Your task to perform on an android device: Open Yahoo.com Image 0: 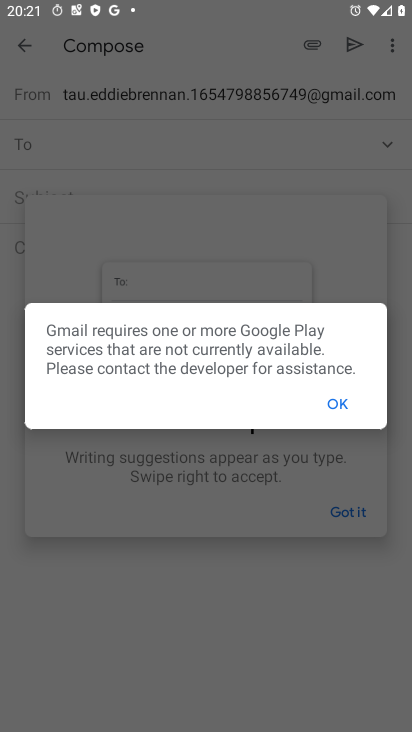
Step 0: press home button
Your task to perform on an android device: Open Yahoo.com Image 1: 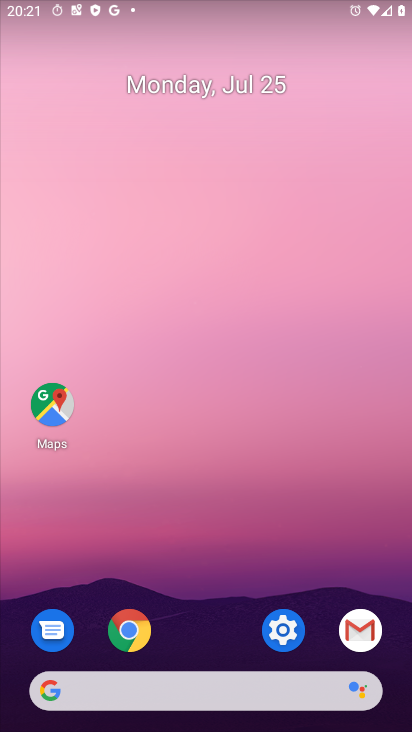
Step 1: click (139, 615)
Your task to perform on an android device: Open Yahoo.com Image 2: 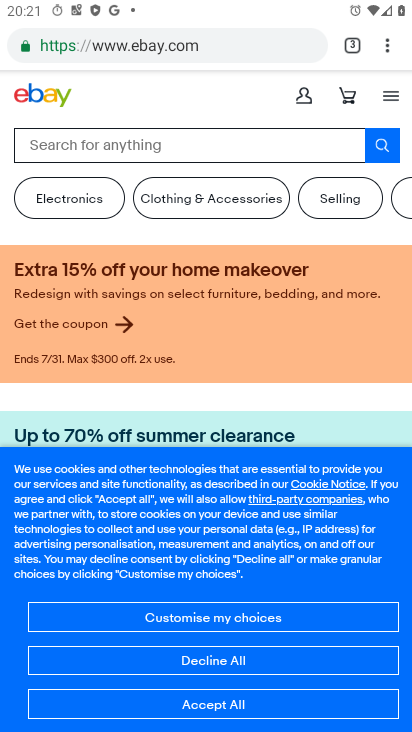
Step 2: click (356, 43)
Your task to perform on an android device: Open Yahoo.com Image 3: 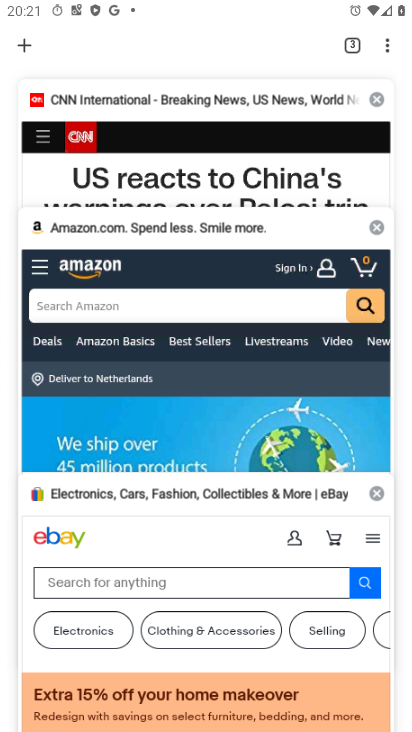
Step 3: click (29, 54)
Your task to perform on an android device: Open Yahoo.com Image 4: 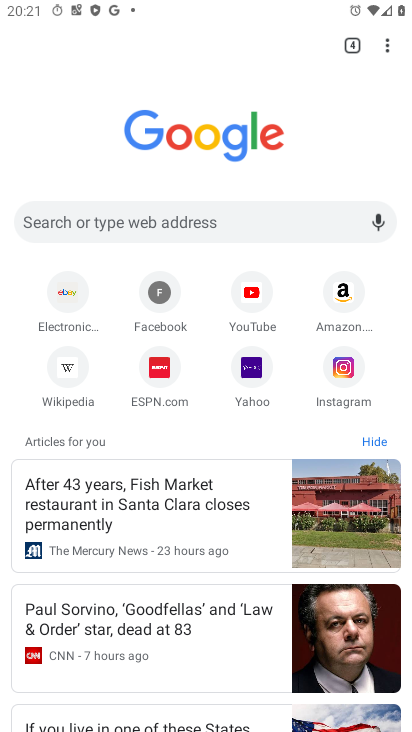
Step 4: click (253, 381)
Your task to perform on an android device: Open Yahoo.com Image 5: 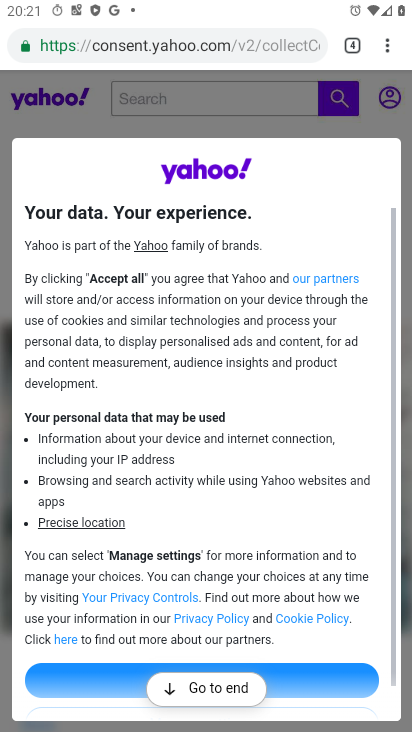
Step 5: click (295, 671)
Your task to perform on an android device: Open Yahoo.com Image 6: 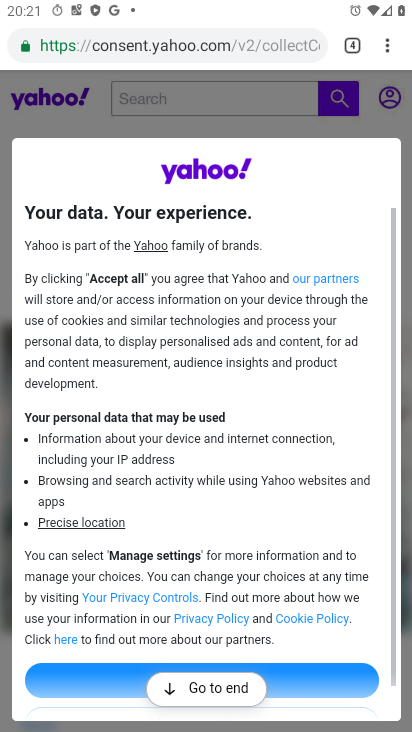
Step 6: drag from (239, 618) to (197, 402)
Your task to perform on an android device: Open Yahoo.com Image 7: 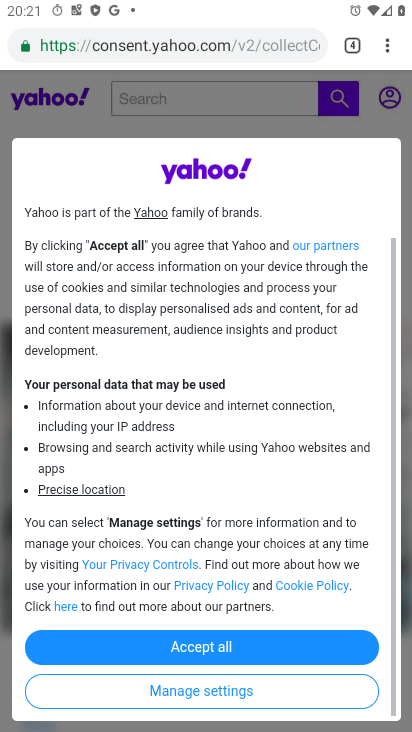
Step 7: click (223, 653)
Your task to perform on an android device: Open Yahoo.com Image 8: 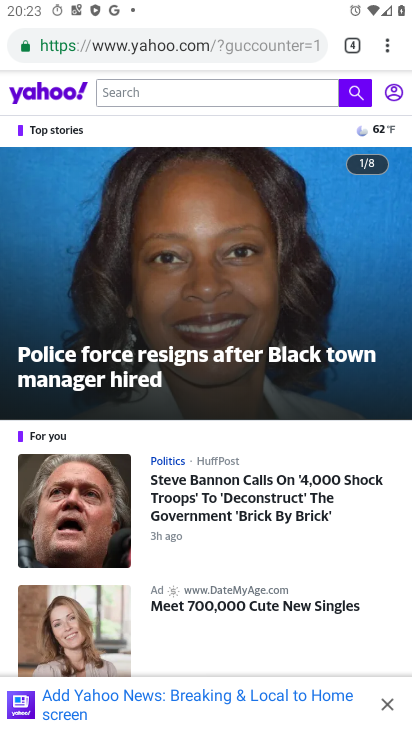
Step 8: task complete